Your task to perform on an android device: turn on data saver in the chrome app Image 0: 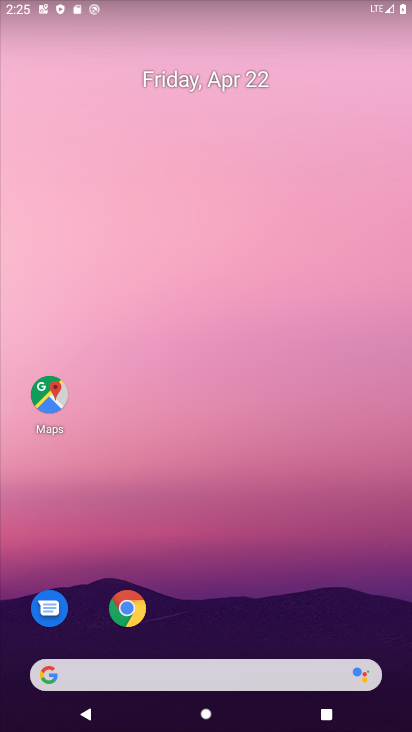
Step 0: drag from (264, 676) to (238, 218)
Your task to perform on an android device: turn on data saver in the chrome app Image 1: 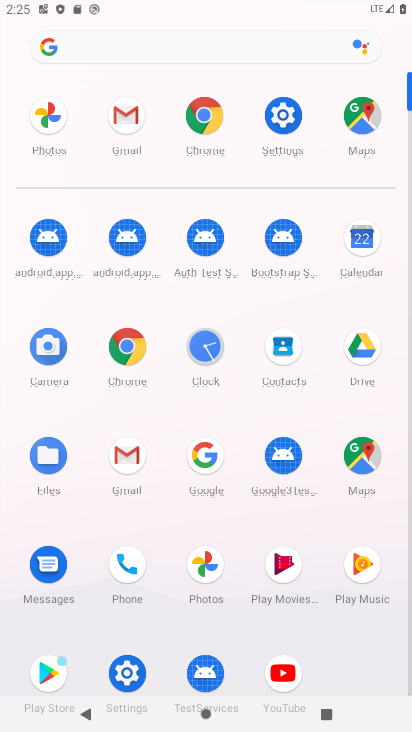
Step 1: click (206, 124)
Your task to perform on an android device: turn on data saver in the chrome app Image 2: 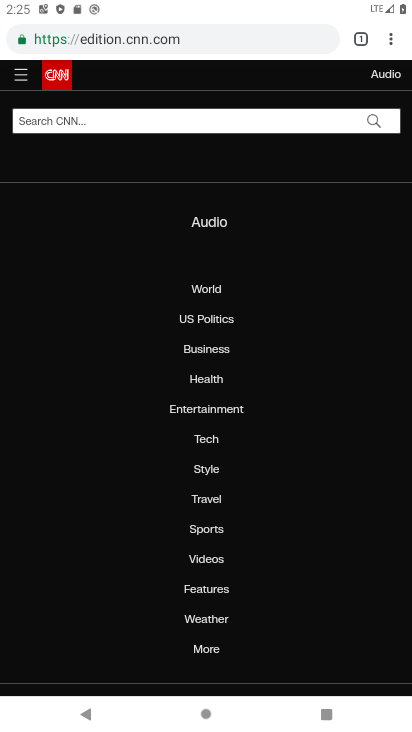
Step 2: click (393, 45)
Your task to perform on an android device: turn on data saver in the chrome app Image 3: 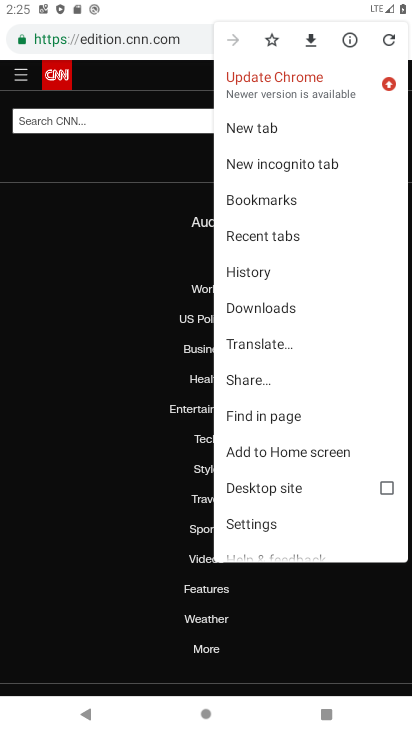
Step 3: click (271, 517)
Your task to perform on an android device: turn on data saver in the chrome app Image 4: 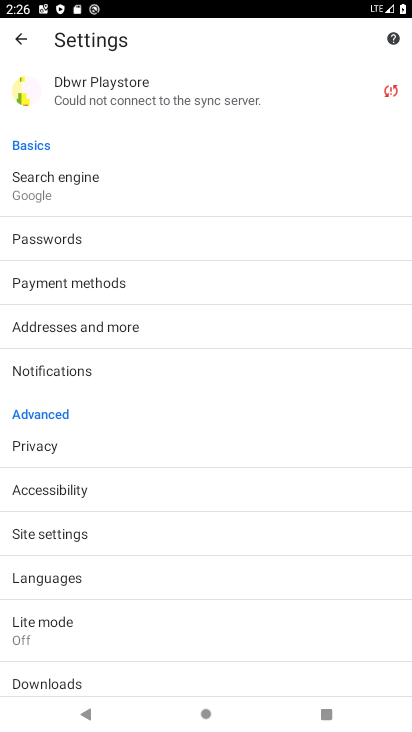
Step 4: click (39, 625)
Your task to perform on an android device: turn on data saver in the chrome app Image 5: 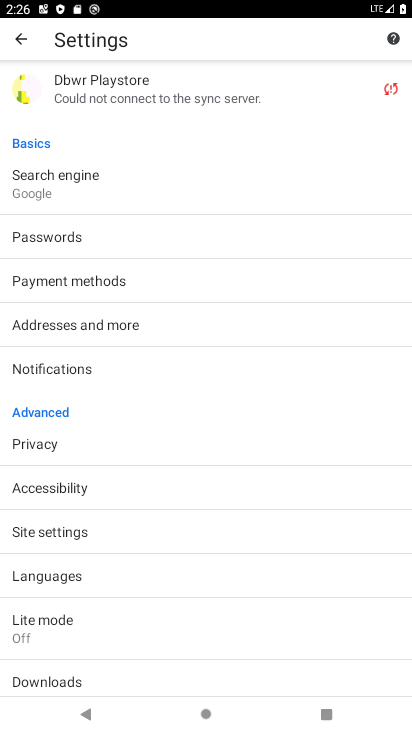
Step 5: task complete